Your task to perform on an android device: Go to internet settings Image 0: 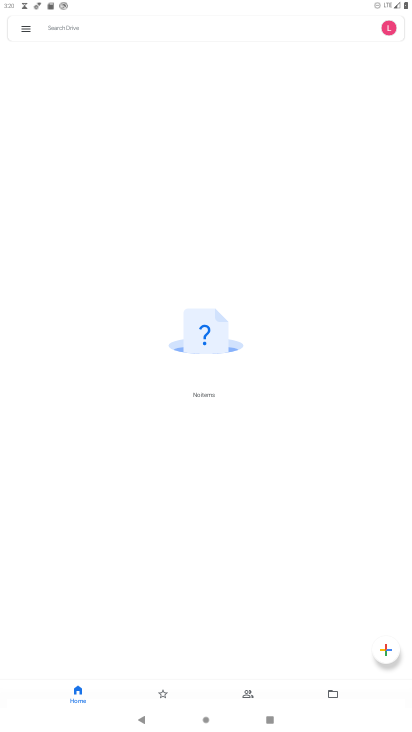
Step 0: press home button
Your task to perform on an android device: Go to internet settings Image 1: 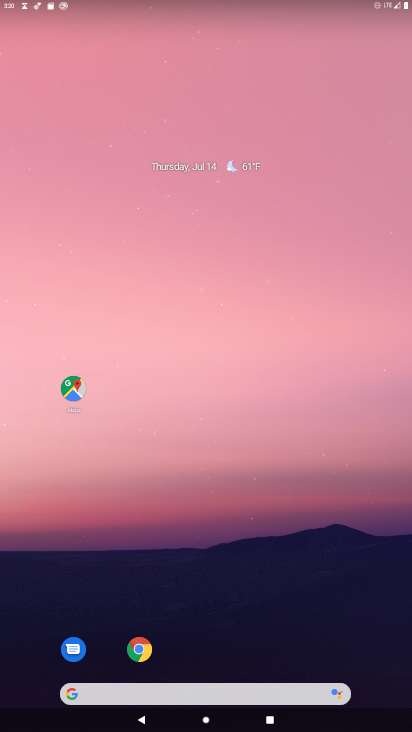
Step 1: drag from (248, 700) to (333, 19)
Your task to perform on an android device: Go to internet settings Image 2: 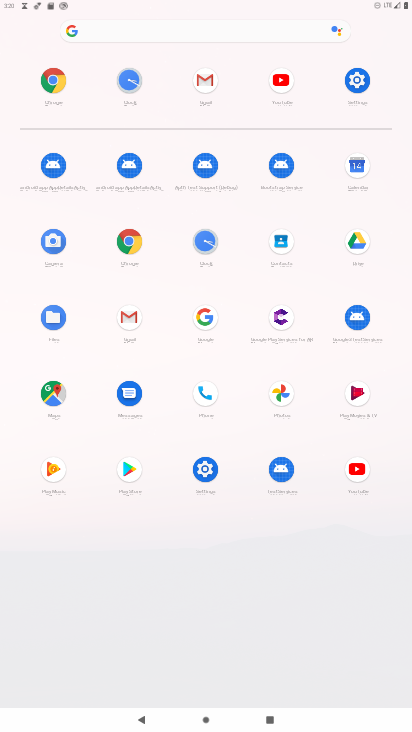
Step 2: click (356, 76)
Your task to perform on an android device: Go to internet settings Image 3: 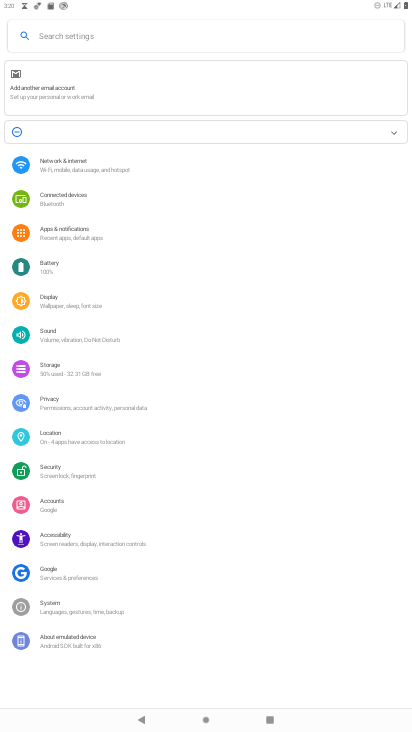
Step 3: click (40, 159)
Your task to perform on an android device: Go to internet settings Image 4: 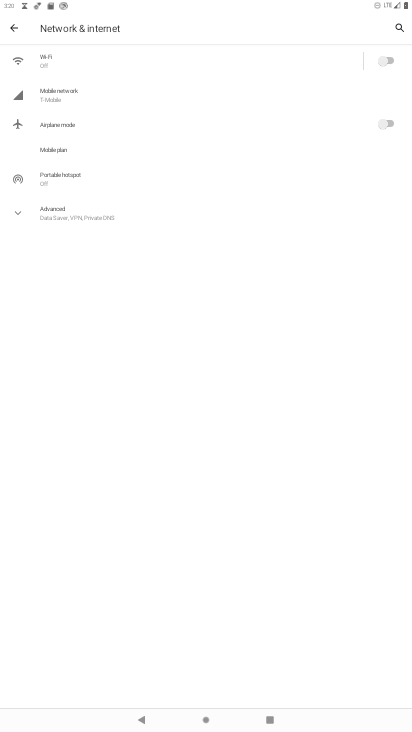
Step 4: task complete